Your task to perform on an android device: delete the emails in spam in the gmail app Image 0: 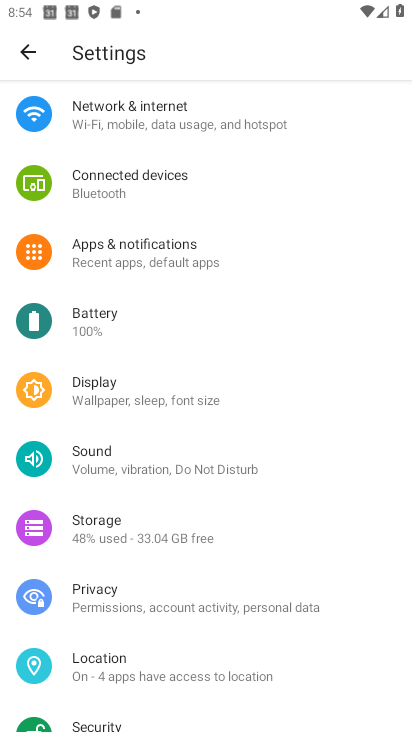
Step 0: press home button
Your task to perform on an android device: delete the emails in spam in the gmail app Image 1: 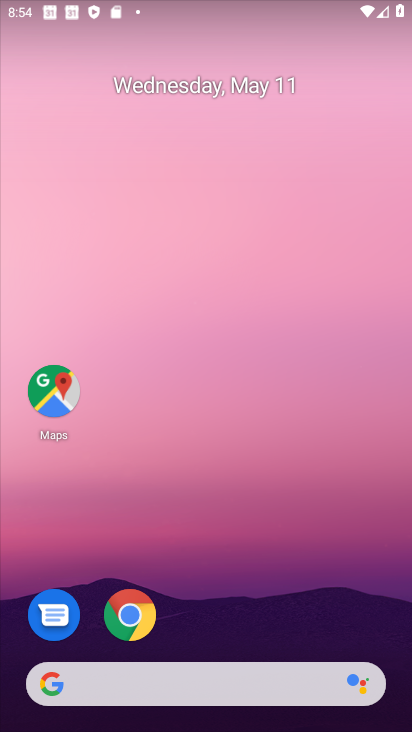
Step 1: drag from (125, 570) to (343, 251)
Your task to perform on an android device: delete the emails in spam in the gmail app Image 2: 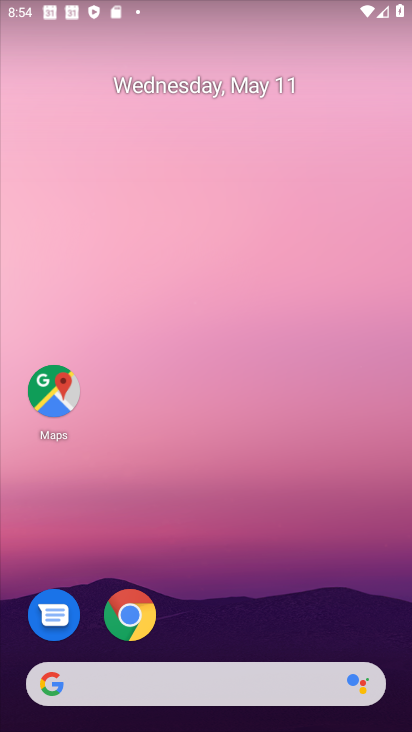
Step 2: drag from (57, 587) to (232, 76)
Your task to perform on an android device: delete the emails in spam in the gmail app Image 3: 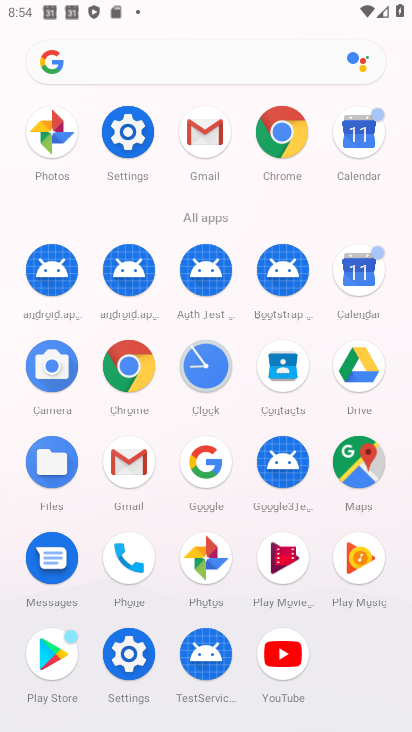
Step 3: click (220, 139)
Your task to perform on an android device: delete the emails in spam in the gmail app Image 4: 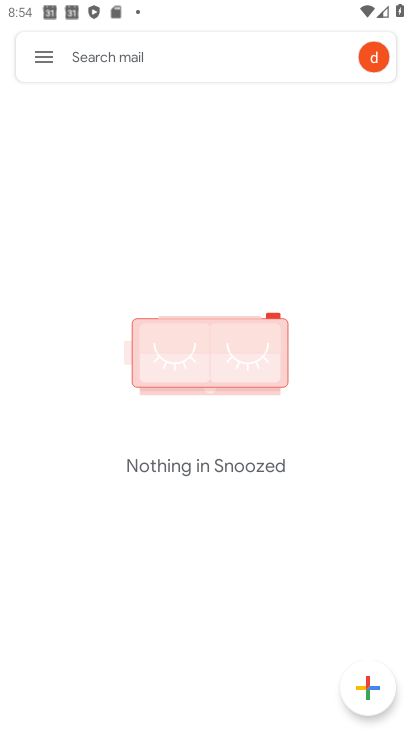
Step 4: click (35, 61)
Your task to perform on an android device: delete the emails in spam in the gmail app Image 5: 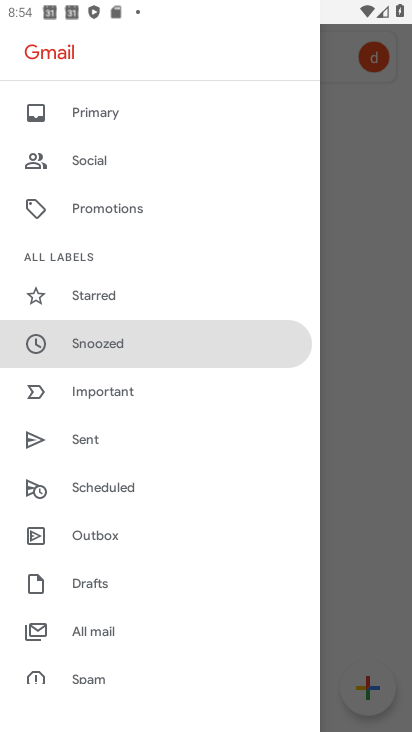
Step 5: click (106, 631)
Your task to perform on an android device: delete the emails in spam in the gmail app Image 6: 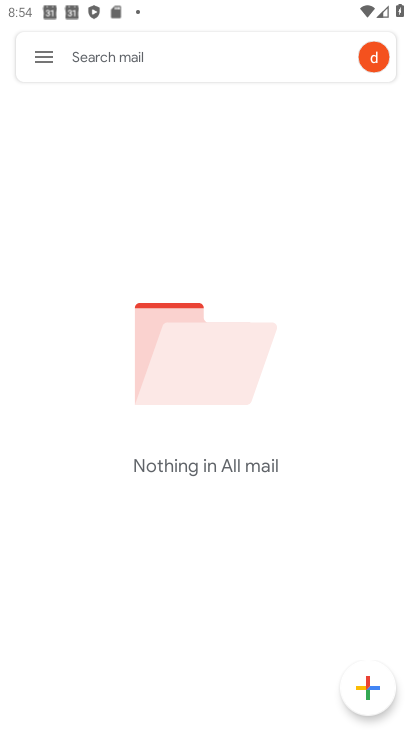
Step 6: task complete